Your task to perform on an android device: Open calendar and show me the second week of next month Image 0: 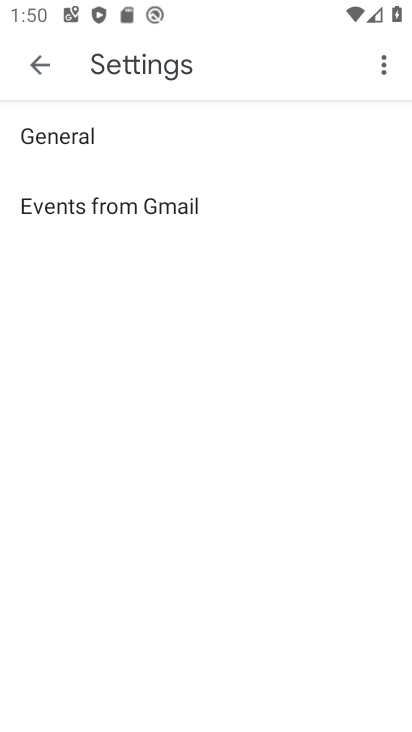
Step 0: press home button
Your task to perform on an android device: Open calendar and show me the second week of next month Image 1: 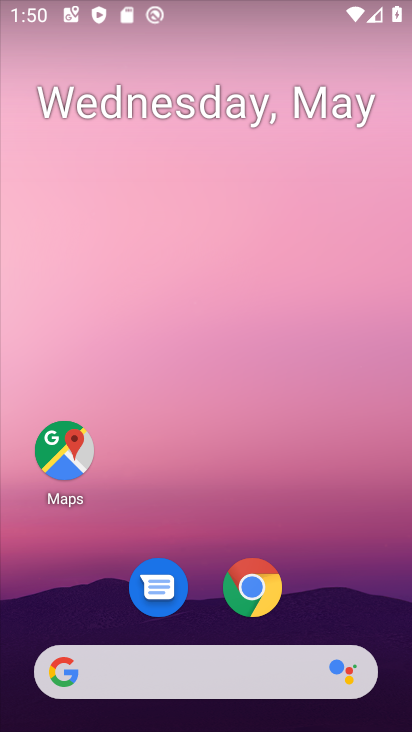
Step 1: drag from (342, 533) to (283, 2)
Your task to perform on an android device: Open calendar and show me the second week of next month Image 2: 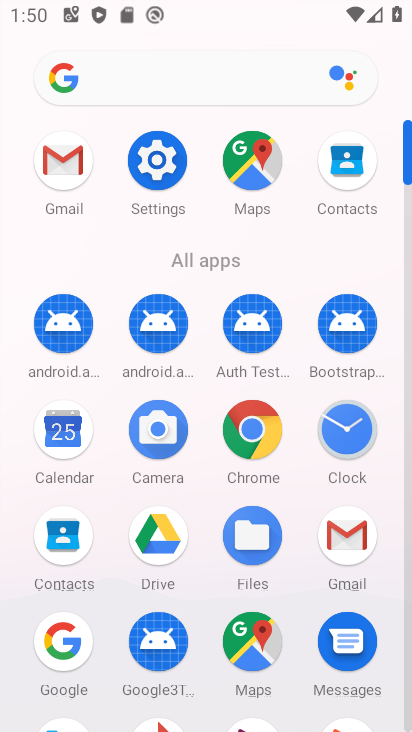
Step 2: click (58, 433)
Your task to perform on an android device: Open calendar and show me the second week of next month Image 3: 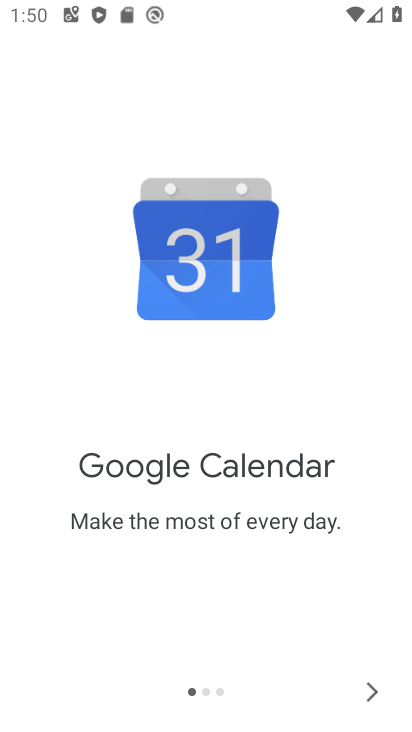
Step 3: click (378, 690)
Your task to perform on an android device: Open calendar and show me the second week of next month Image 4: 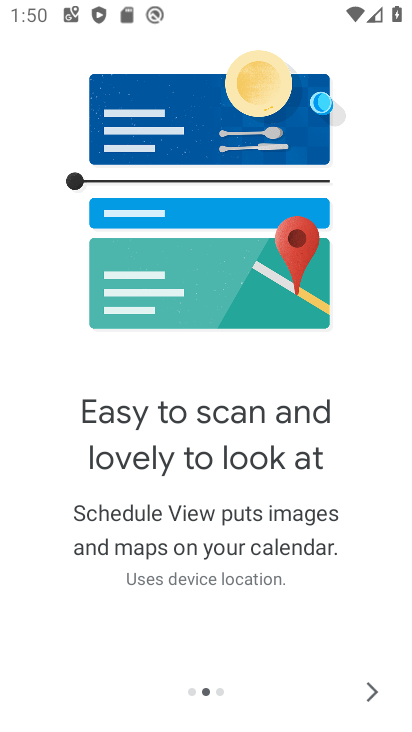
Step 4: click (379, 689)
Your task to perform on an android device: Open calendar and show me the second week of next month Image 5: 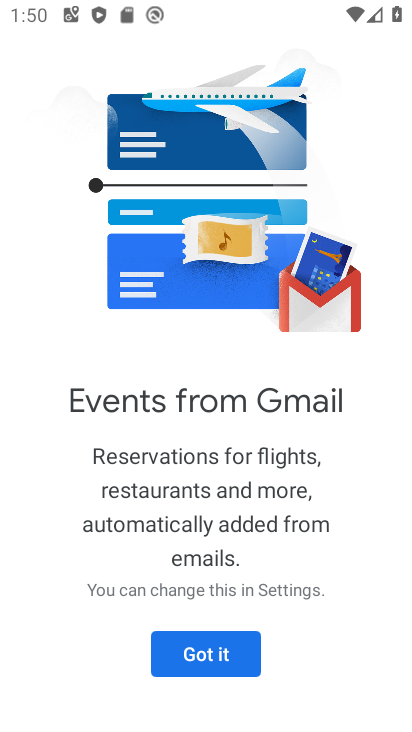
Step 5: click (231, 644)
Your task to perform on an android device: Open calendar and show me the second week of next month Image 6: 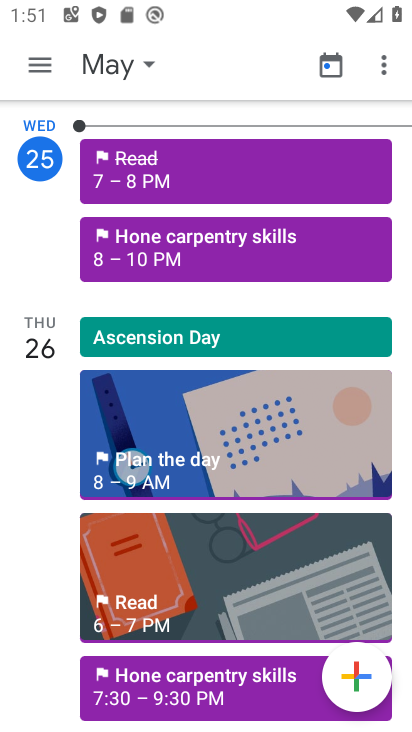
Step 6: click (37, 60)
Your task to perform on an android device: Open calendar and show me the second week of next month Image 7: 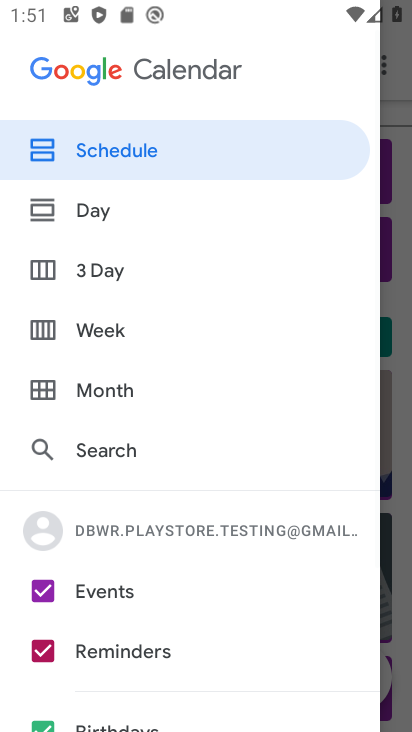
Step 7: click (108, 323)
Your task to perform on an android device: Open calendar and show me the second week of next month Image 8: 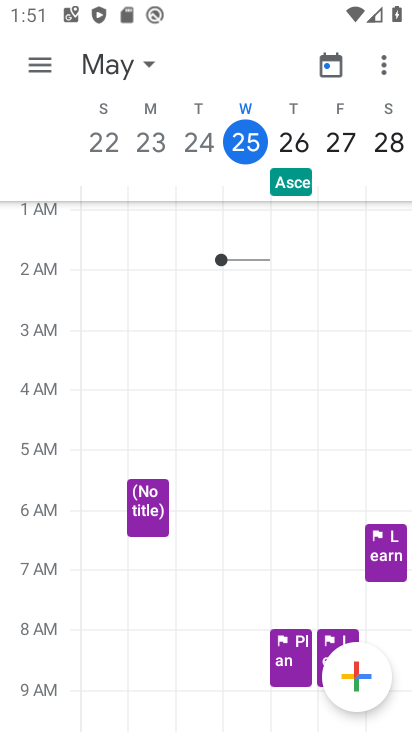
Step 8: click (139, 77)
Your task to perform on an android device: Open calendar and show me the second week of next month Image 9: 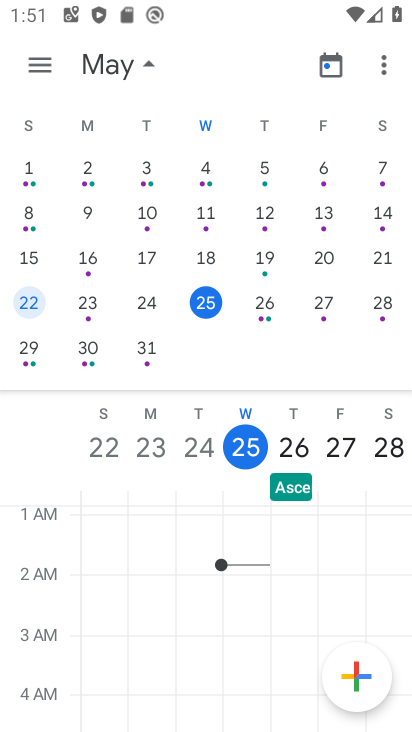
Step 9: drag from (360, 331) to (0, 148)
Your task to perform on an android device: Open calendar and show me the second week of next month Image 10: 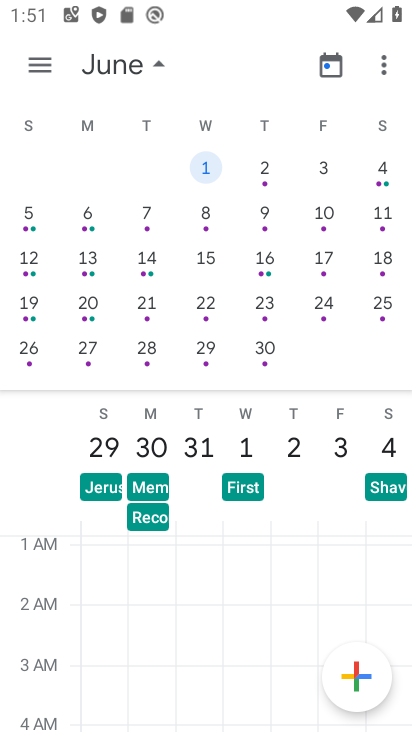
Step 10: drag from (380, 303) to (330, 294)
Your task to perform on an android device: Open calendar and show me the second week of next month Image 11: 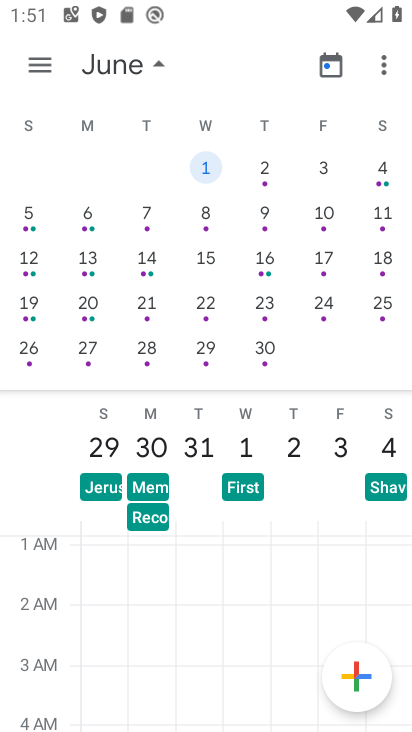
Step 11: click (92, 262)
Your task to perform on an android device: Open calendar and show me the second week of next month Image 12: 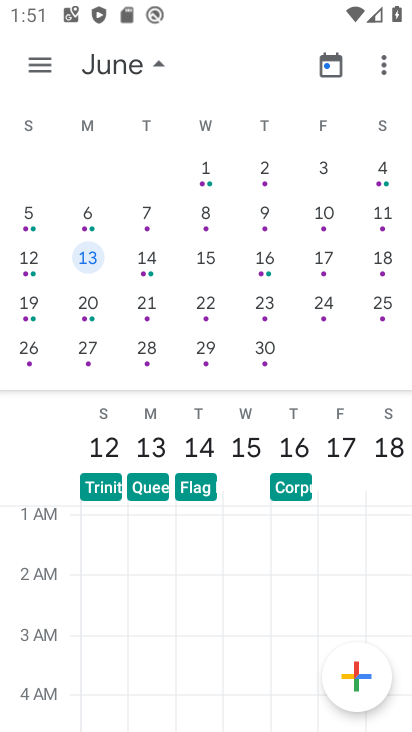
Step 12: task complete